Your task to perform on an android device: toggle location history Image 0: 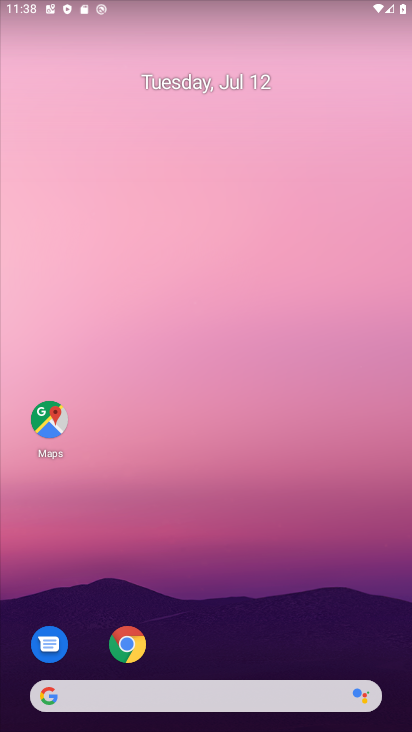
Step 0: click (42, 422)
Your task to perform on an android device: toggle location history Image 1: 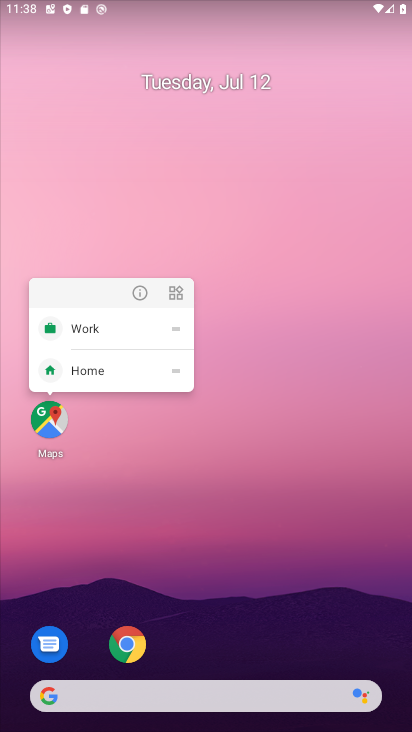
Step 1: click (47, 420)
Your task to perform on an android device: toggle location history Image 2: 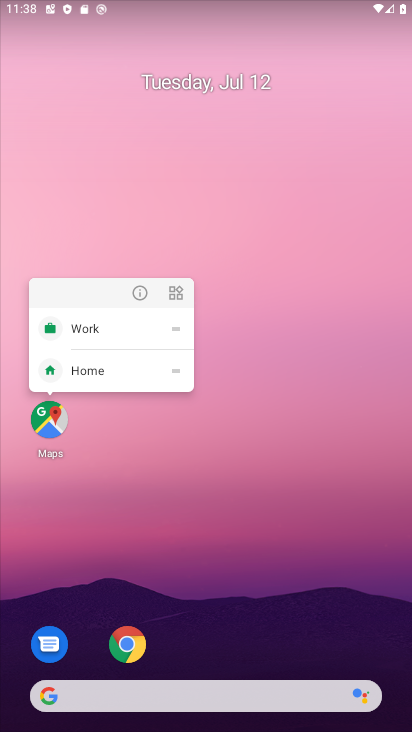
Step 2: click (47, 420)
Your task to perform on an android device: toggle location history Image 3: 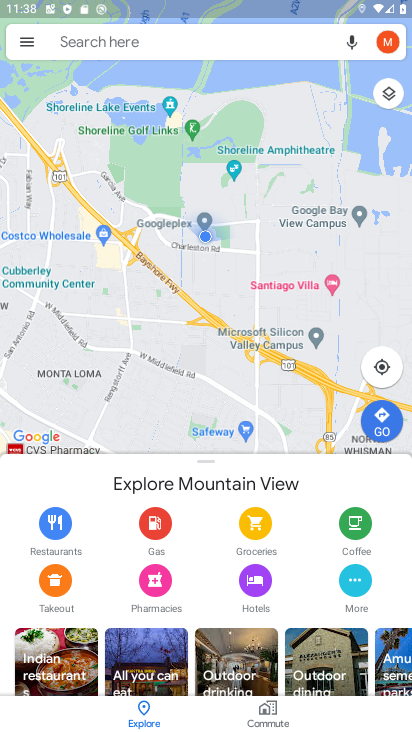
Step 3: click (26, 42)
Your task to perform on an android device: toggle location history Image 4: 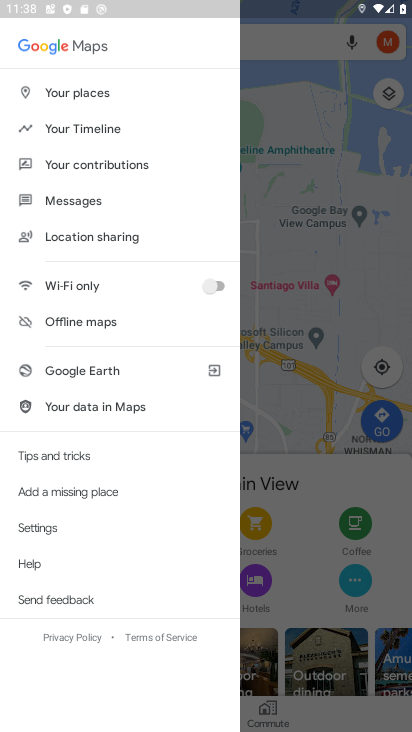
Step 4: click (96, 131)
Your task to perform on an android device: toggle location history Image 5: 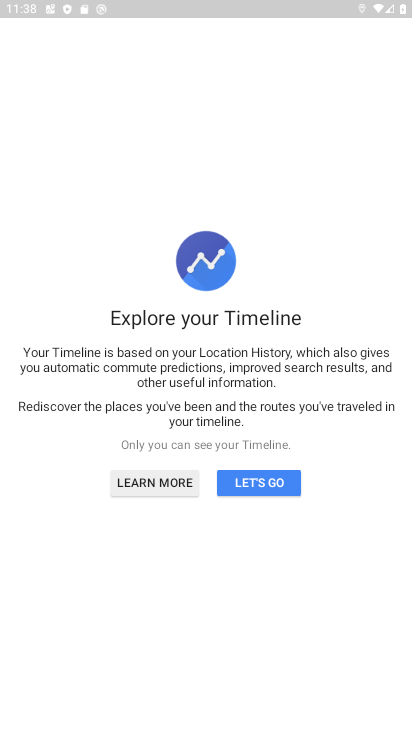
Step 5: click (252, 478)
Your task to perform on an android device: toggle location history Image 6: 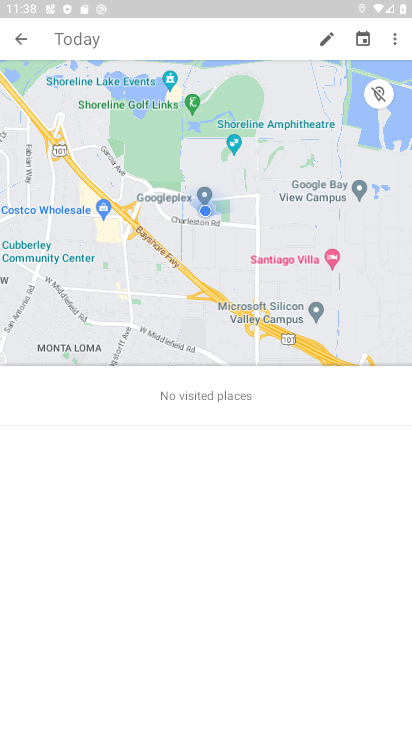
Step 6: click (401, 40)
Your task to perform on an android device: toggle location history Image 7: 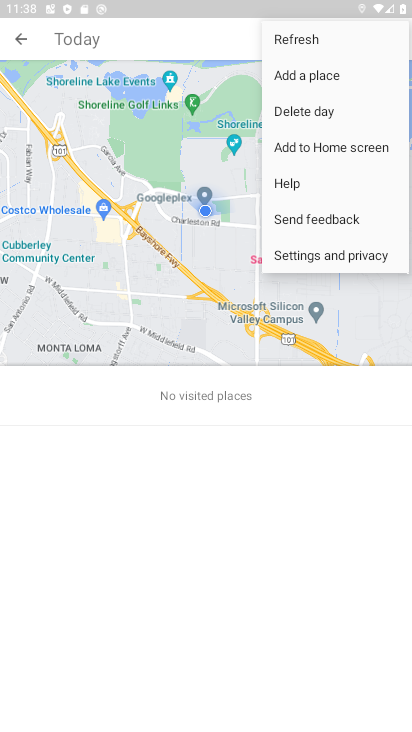
Step 7: click (376, 248)
Your task to perform on an android device: toggle location history Image 8: 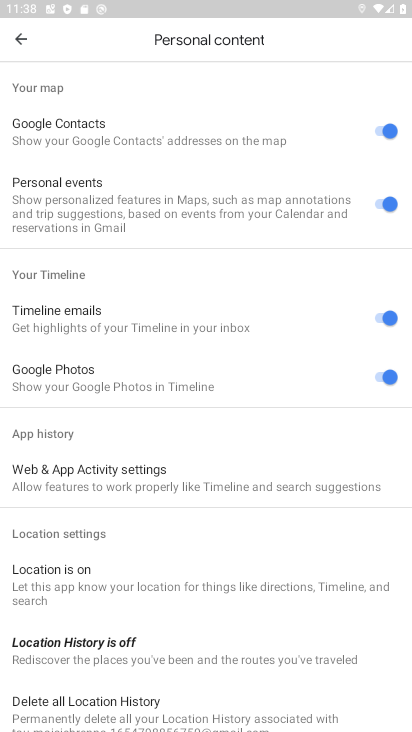
Step 8: click (174, 653)
Your task to perform on an android device: toggle location history Image 9: 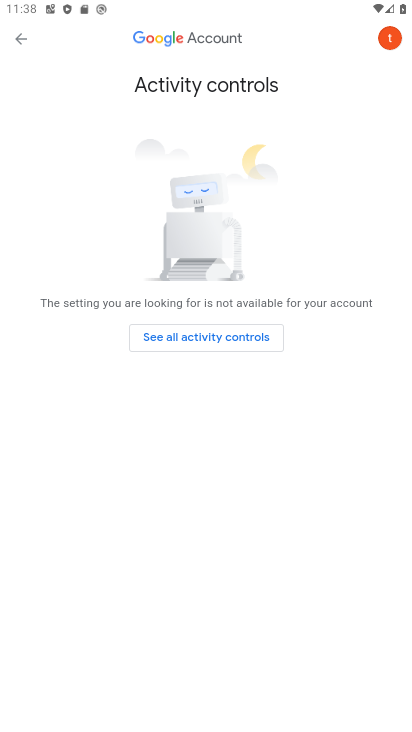
Step 9: click (253, 338)
Your task to perform on an android device: toggle location history Image 10: 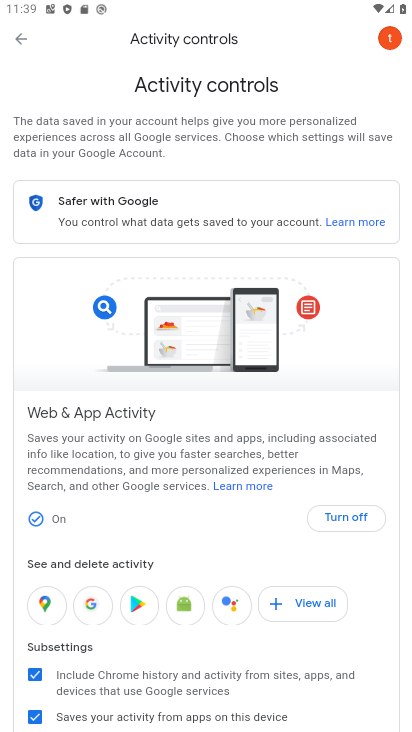
Step 10: click (359, 521)
Your task to perform on an android device: toggle location history Image 11: 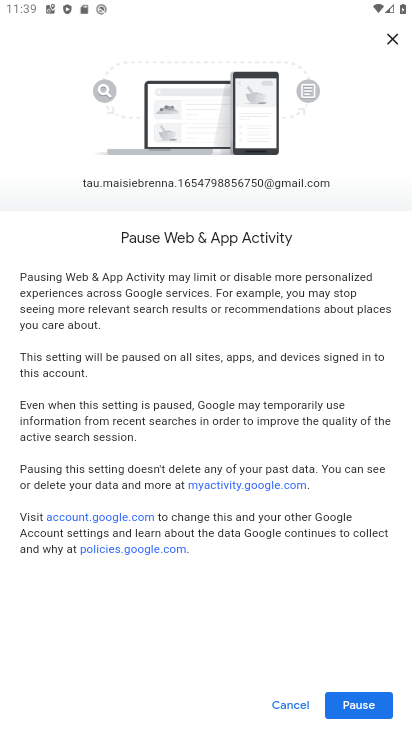
Step 11: click (342, 708)
Your task to perform on an android device: toggle location history Image 12: 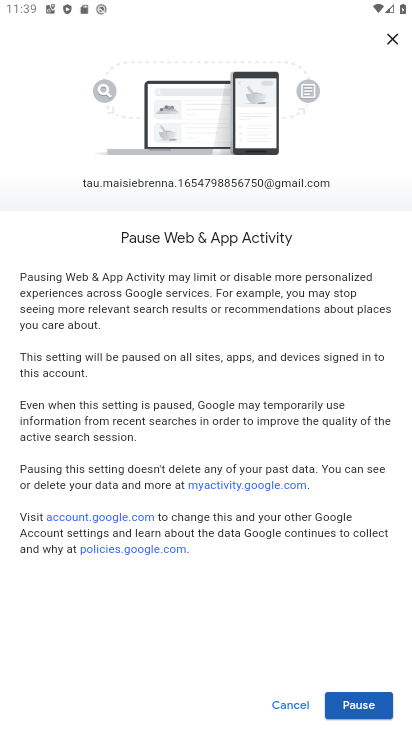
Step 12: click (362, 704)
Your task to perform on an android device: toggle location history Image 13: 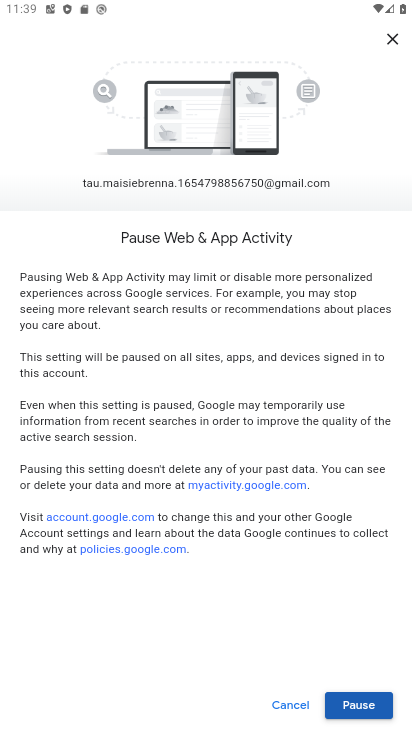
Step 13: drag from (361, 639) to (402, 460)
Your task to perform on an android device: toggle location history Image 14: 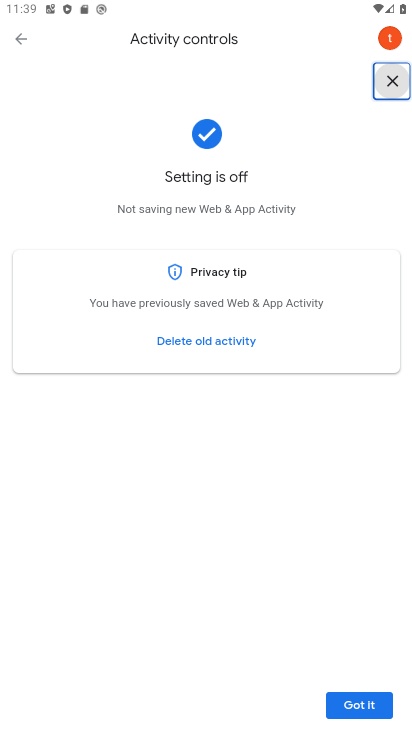
Step 14: click (368, 710)
Your task to perform on an android device: toggle location history Image 15: 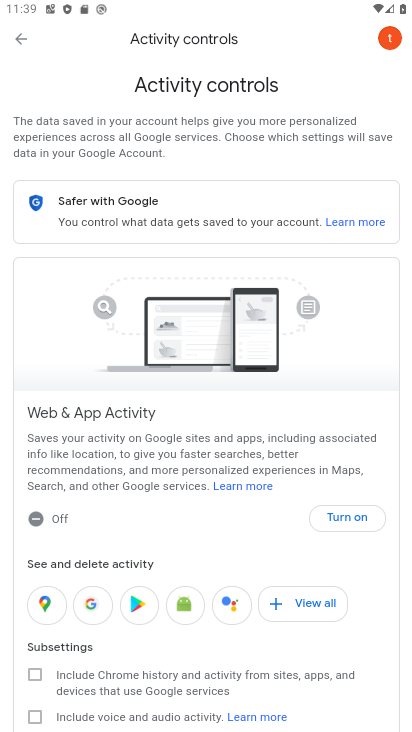
Step 15: task complete